Your task to perform on an android device: turn off notifications in google photos Image 0: 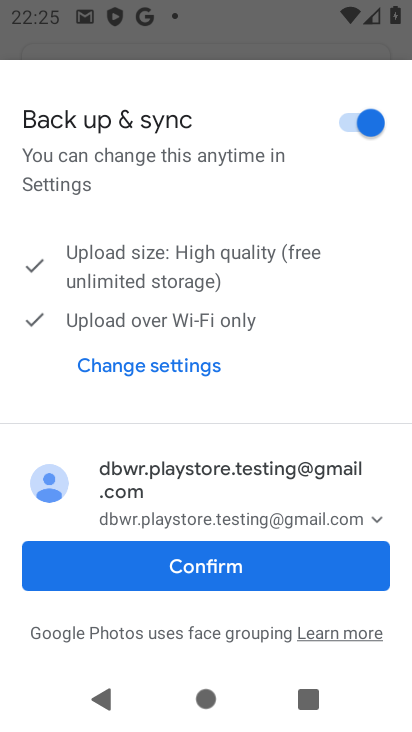
Step 0: press home button
Your task to perform on an android device: turn off notifications in google photos Image 1: 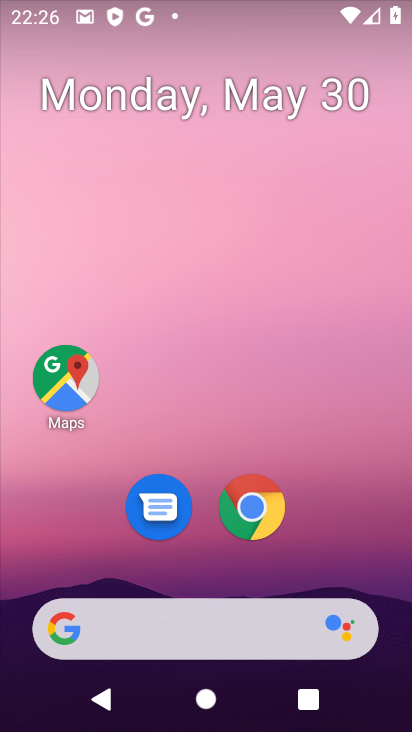
Step 1: drag from (378, 559) to (384, 289)
Your task to perform on an android device: turn off notifications in google photos Image 2: 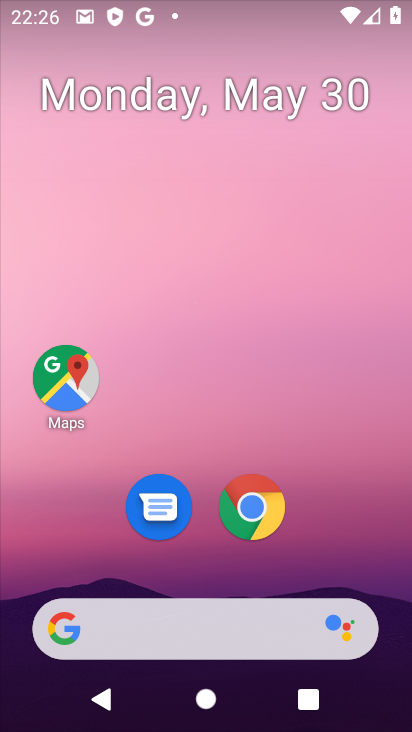
Step 2: drag from (357, 555) to (346, 141)
Your task to perform on an android device: turn off notifications in google photos Image 3: 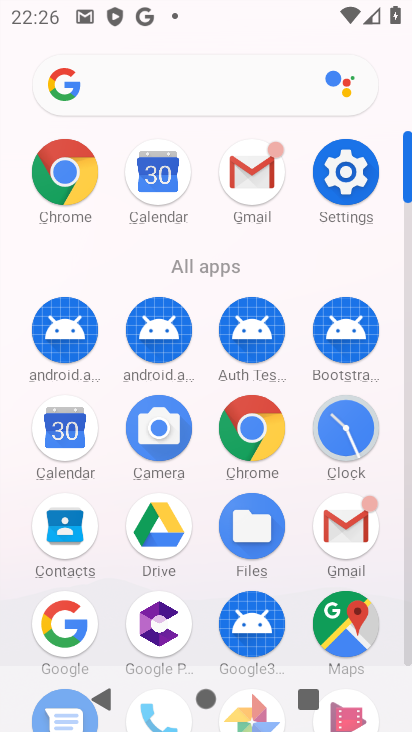
Step 3: drag from (292, 569) to (335, 318)
Your task to perform on an android device: turn off notifications in google photos Image 4: 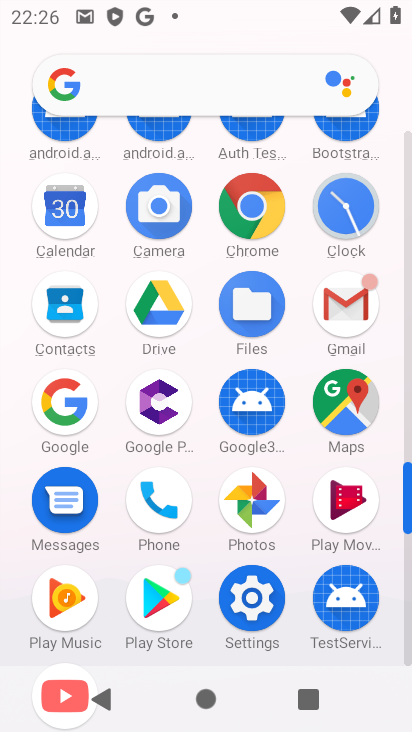
Step 4: click (252, 510)
Your task to perform on an android device: turn off notifications in google photos Image 5: 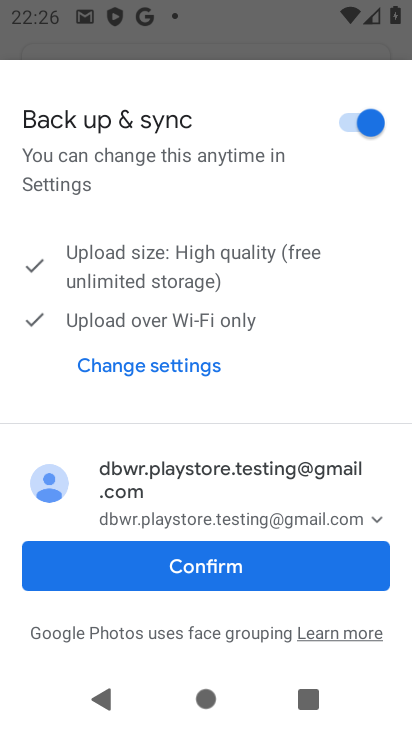
Step 5: click (245, 558)
Your task to perform on an android device: turn off notifications in google photos Image 6: 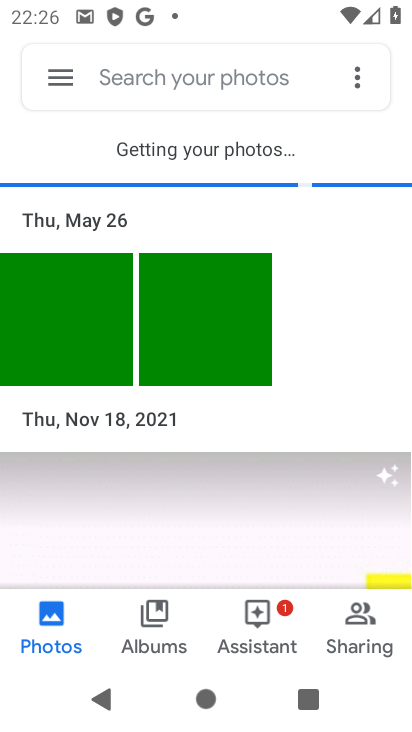
Step 6: click (63, 79)
Your task to perform on an android device: turn off notifications in google photos Image 7: 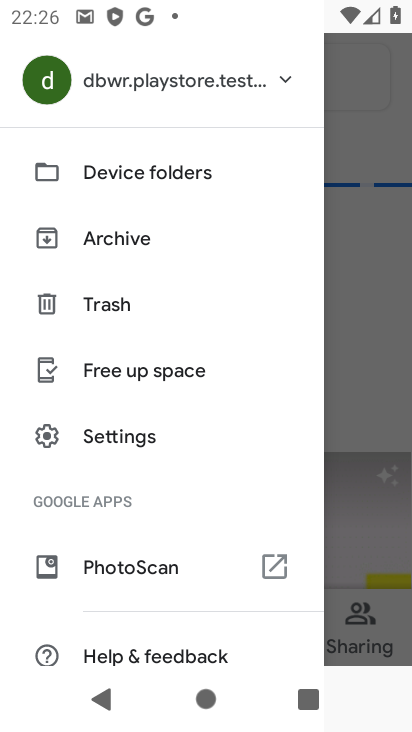
Step 7: drag from (200, 448) to (206, 266)
Your task to perform on an android device: turn off notifications in google photos Image 8: 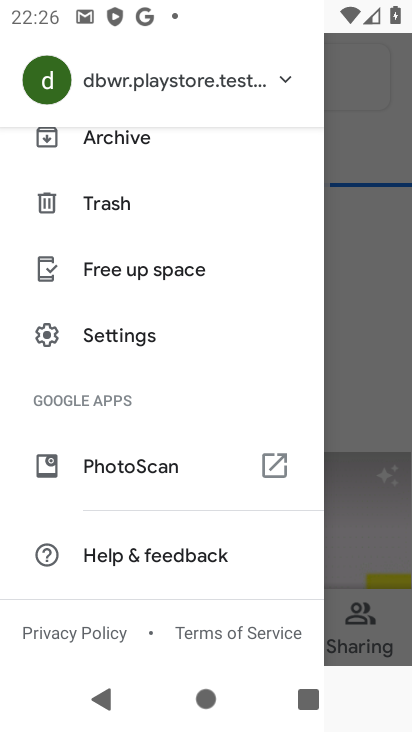
Step 8: click (143, 355)
Your task to perform on an android device: turn off notifications in google photos Image 9: 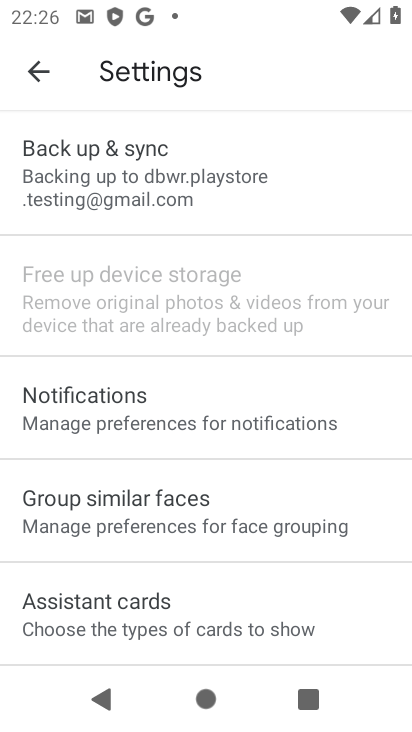
Step 9: click (236, 420)
Your task to perform on an android device: turn off notifications in google photos Image 10: 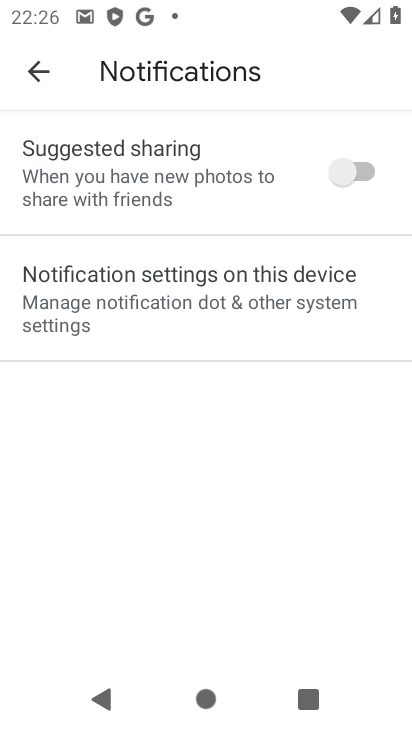
Step 10: click (259, 295)
Your task to perform on an android device: turn off notifications in google photos Image 11: 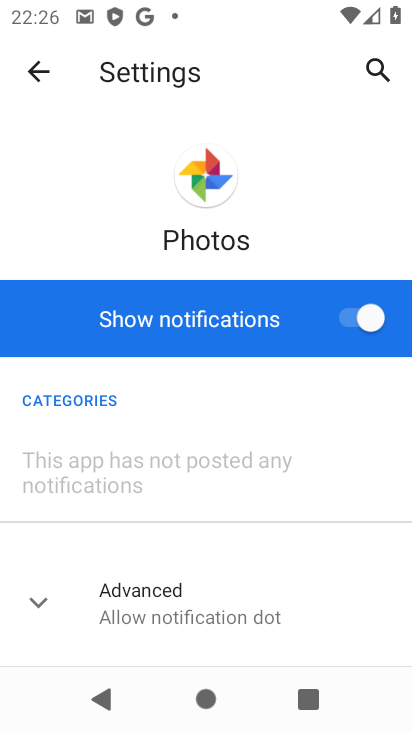
Step 11: click (361, 325)
Your task to perform on an android device: turn off notifications in google photos Image 12: 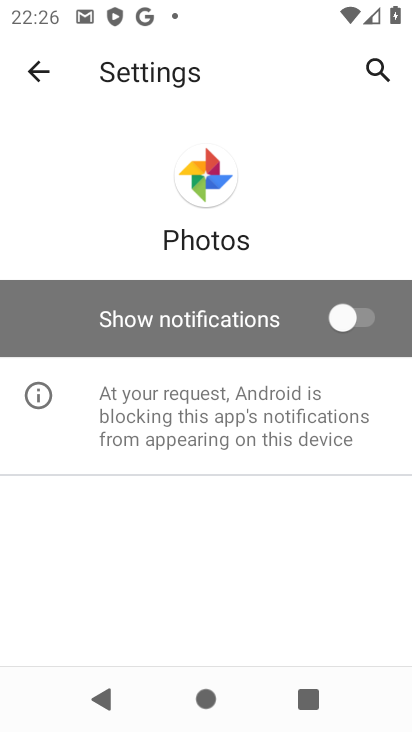
Step 12: task complete